Your task to perform on an android device: open the mobile data screen to see how much data has been used Image 0: 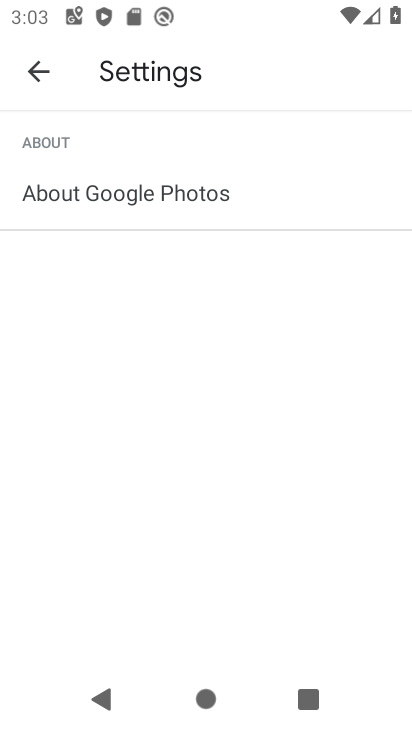
Step 0: press back button
Your task to perform on an android device: open the mobile data screen to see how much data has been used Image 1: 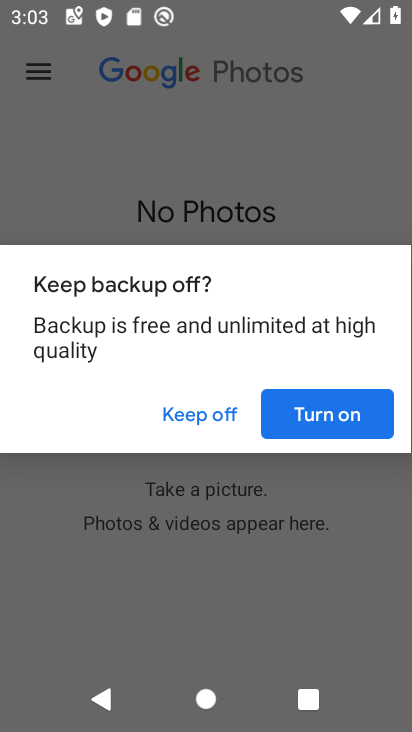
Step 1: press back button
Your task to perform on an android device: open the mobile data screen to see how much data has been used Image 2: 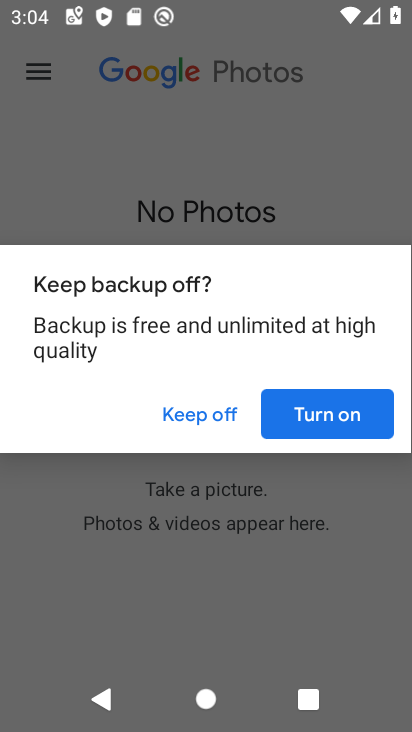
Step 2: press home button
Your task to perform on an android device: open the mobile data screen to see how much data has been used Image 3: 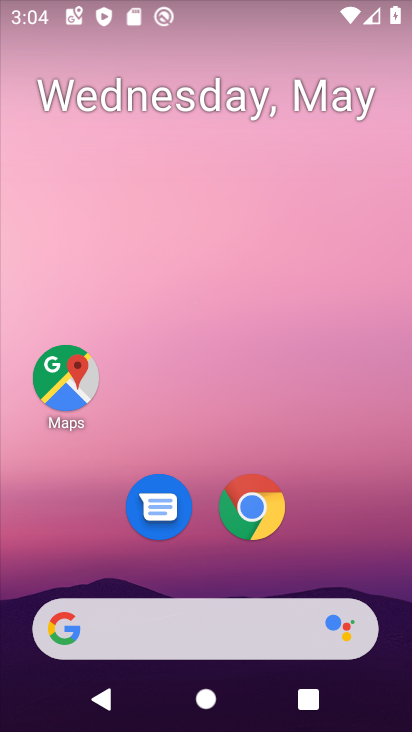
Step 3: drag from (222, 537) to (289, 89)
Your task to perform on an android device: open the mobile data screen to see how much data has been used Image 4: 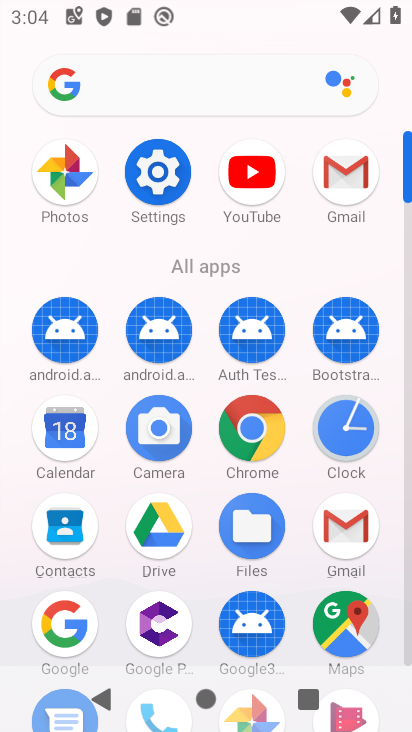
Step 4: click (139, 151)
Your task to perform on an android device: open the mobile data screen to see how much data has been used Image 5: 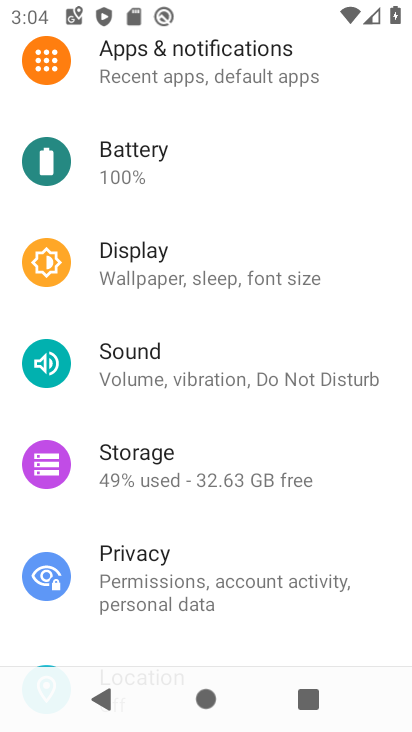
Step 5: drag from (164, 151) to (110, 680)
Your task to perform on an android device: open the mobile data screen to see how much data has been used Image 6: 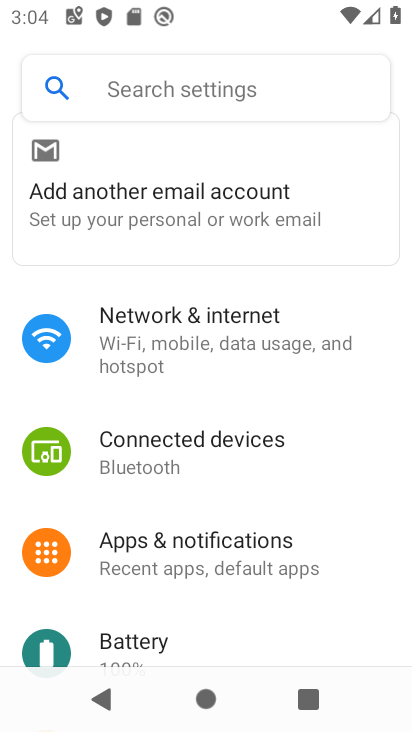
Step 6: click (129, 351)
Your task to perform on an android device: open the mobile data screen to see how much data has been used Image 7: 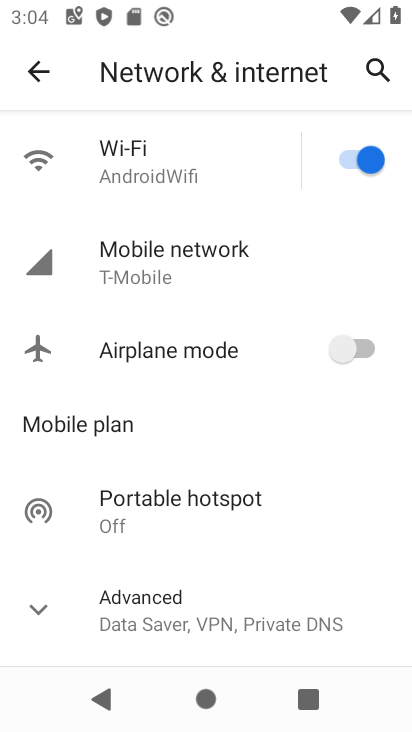
Step 7: click (142, 248)
Your task to perform on an android device: open the mobile data screen to see how much data has been used Image 8: 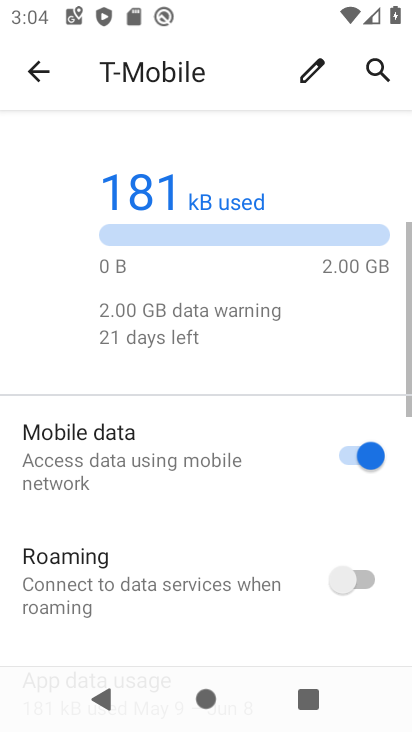
Step 8: drag from (135, 594) to (243, 126)
Your task to perform on an android device: open the mobile data screen to see how much data has been used Image 9: 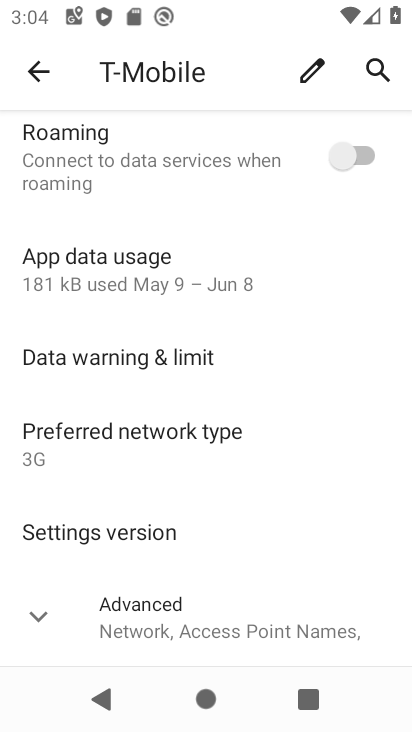
Step 9: click (185, 253)
Your task to perform on an android device: open the mobile data screen to see how much data has been used Image 10: 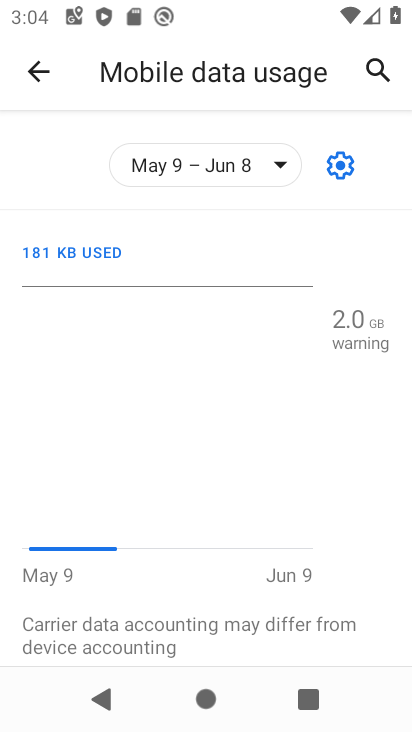
Step 10: task complete